Your task to perform on an android device: manage bookmarks in the chrome app Image 0: 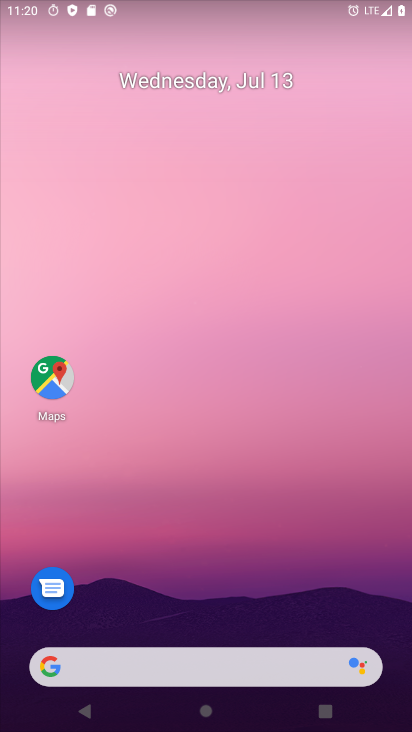
Step 0: drag from (283, 698) to (325, 47)
Your task to perform on an android device: manage bookmarks in the chrome app Image 1: 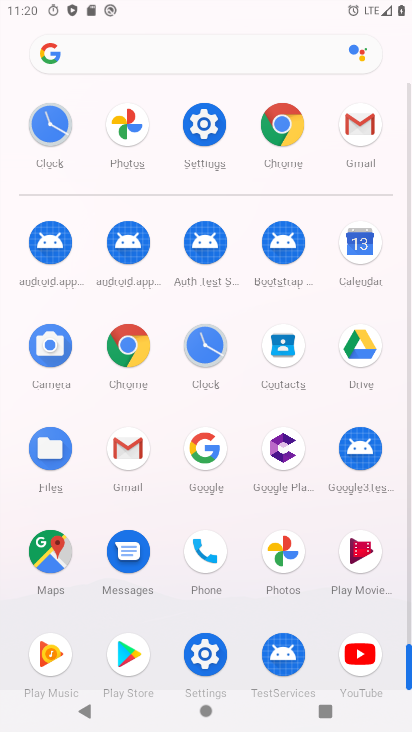
Step 1: click (126, 347)
Your task to perform on an android device: manage bookmarks in the chrome app Image 2: 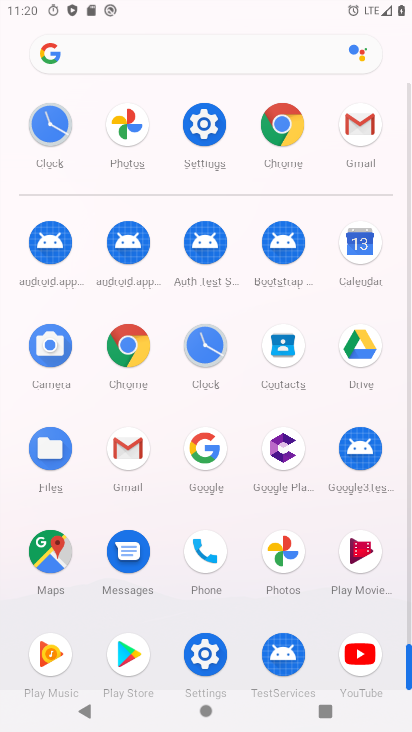
Step 2: click (126, 347)
Your task to perform on an android device: manage bookmarks in the chrome app Image 3: 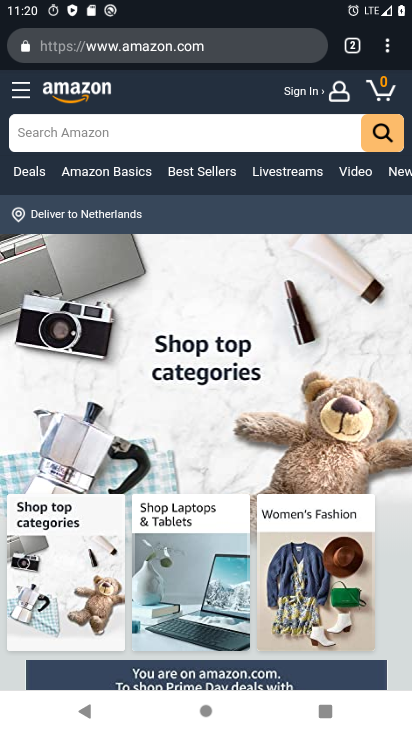
Step 3: click (386, 45)
Your task to perform on an android device: manage bookmarks in the chrome app Image 4: 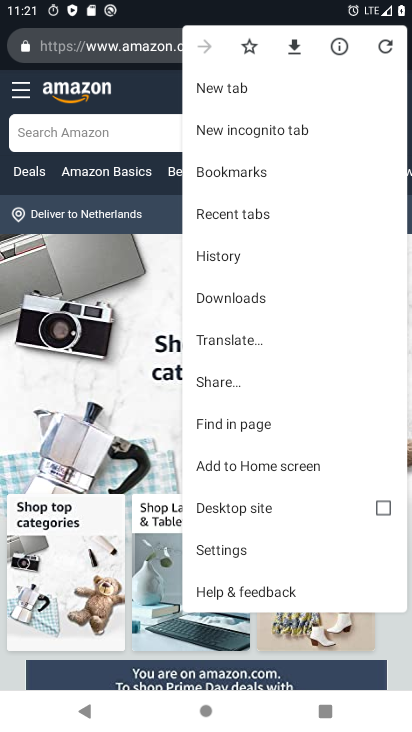
Step 4: click (238, 553)
Your task to perform on an android device: manage bookmarks in the chrome app Image 5: 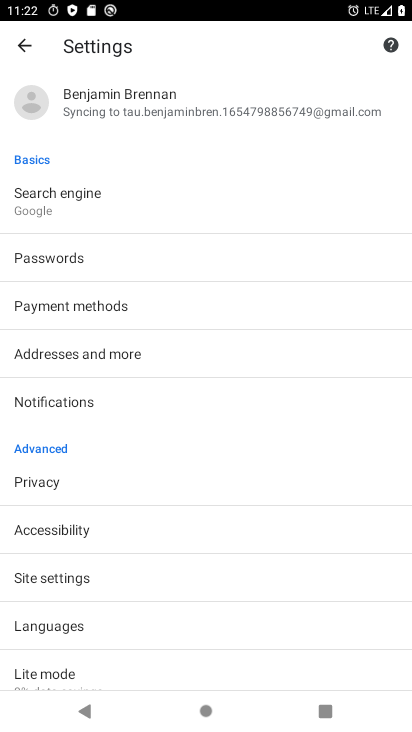
Step 5: drag from (236, 507) to (304, 151)
Your task to perform on an android device: manage bookmarks in the chrome app Image 6: 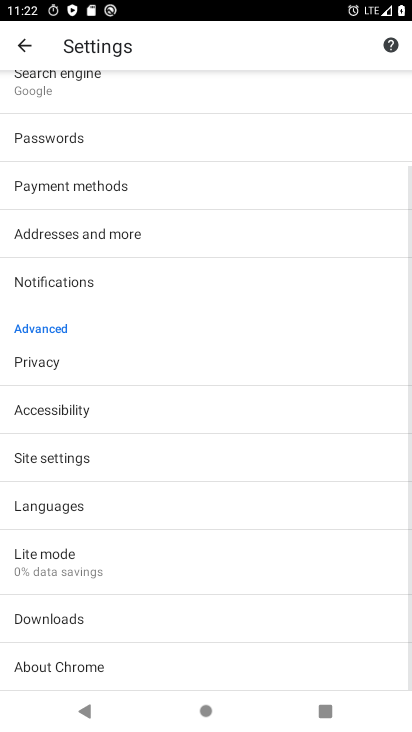
Step 6: drag from (265, 305) to (133, 721)
Your task to perform on an android device: manage bookmarks in the chrome app Image 7: 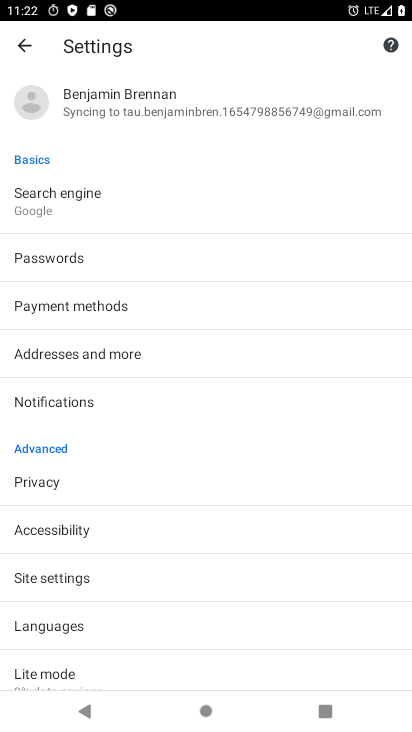
Step 7: drag from (212, 615) to (240, 169)
Your task to perform on an android device: manage bookmarks in the chrome app Image 8: 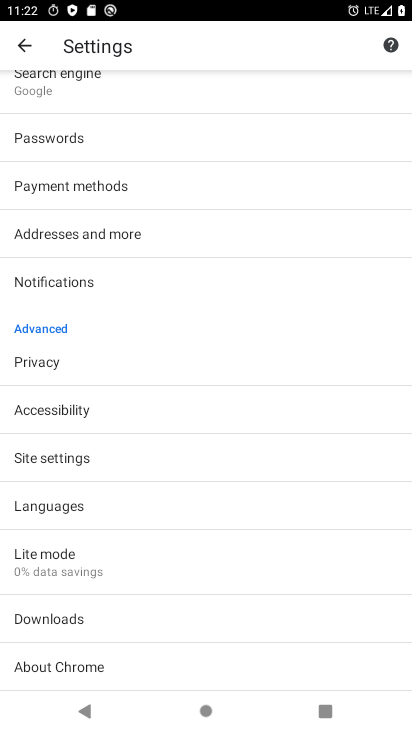
Step 8: drag from (326, 144) to (287, 632)
Your task to perform on an android device: manage bookmarks in the chrome app Image 9: 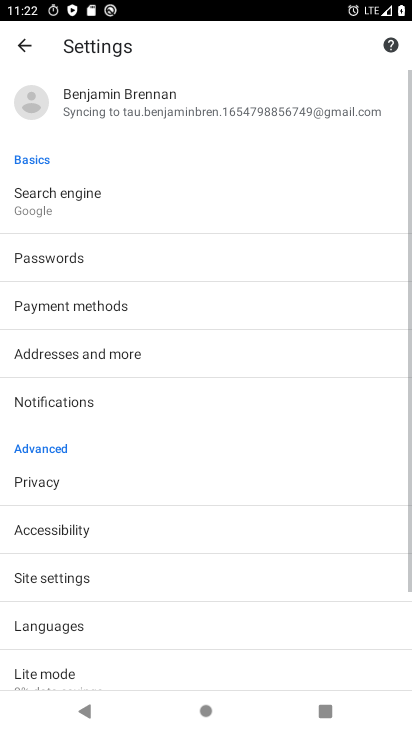
Step 9: click (16, 49)
Your task to perform on an android device: manage bookmarks in the chrome app Image 10: 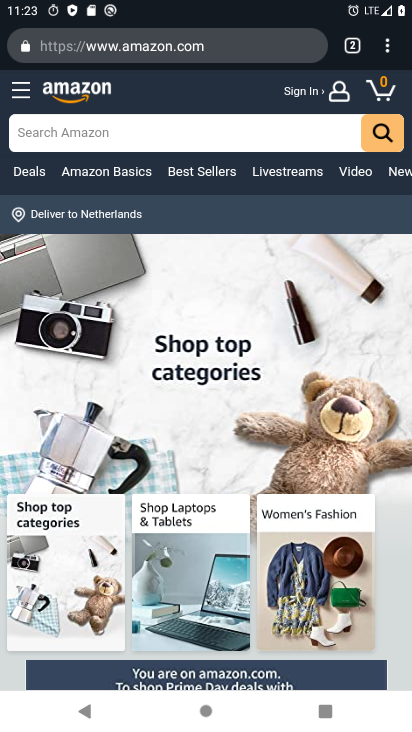
Step 10: click (390, 43)
Your task to perform on an android device: manage bookmarks in the chrome app Image 11: 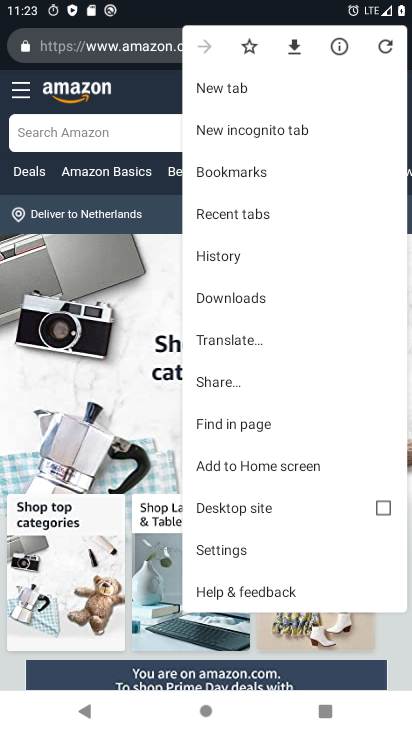
Step 11: click (277, 169)
Your task to perform on an android device: manage bookmarks in the chrome app Image 12: 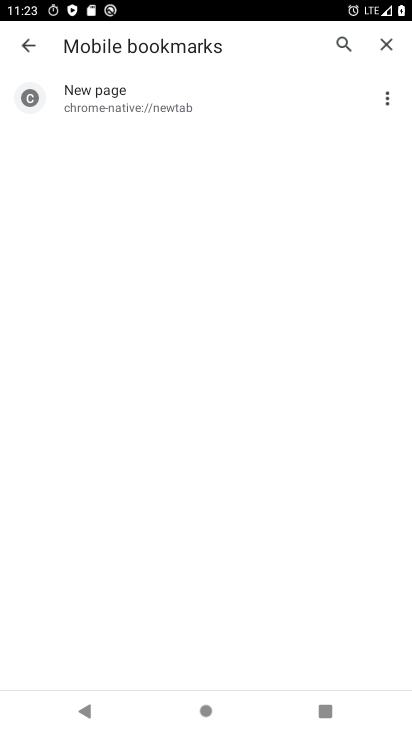
Step 12: click (127, 512)
Your task to perform on an android device: manage bookmarks in the chrome app Image 13: 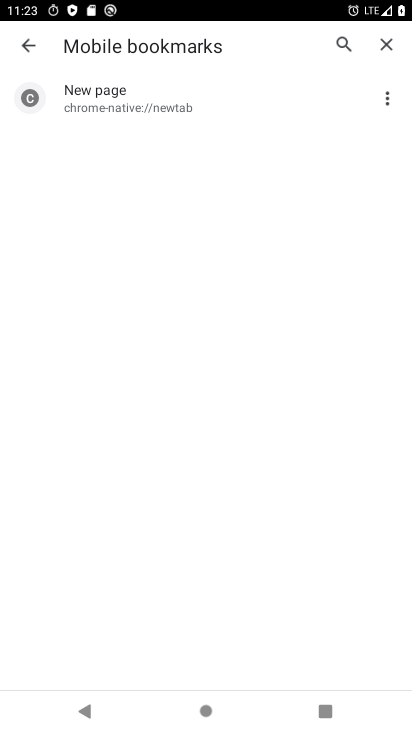
Step 13: click (387, 100)
Your task to perform on an android device: manage bookmarks in the chrome app Image 14: 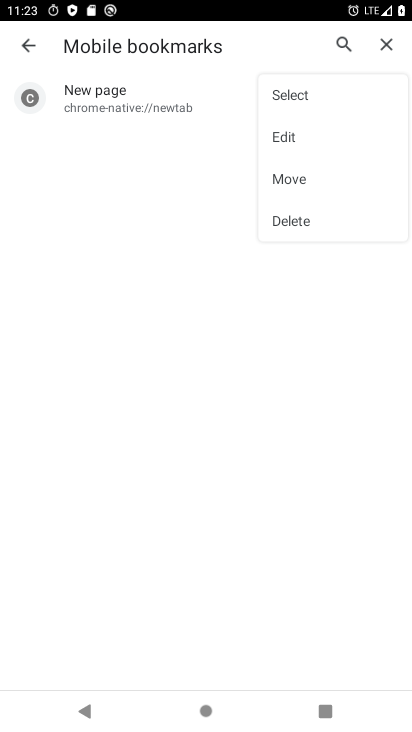
Step 14: click (220, 310)
Your task to perform on an android device: manage bookmarks in the chrome app Image 15: 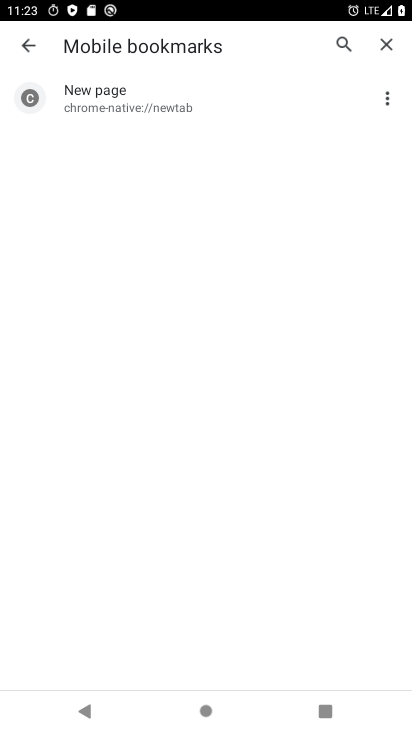
Step 15: click (395, 98)
Your task to perform on an android device: manage bookmarks in the chrome app Image 16: 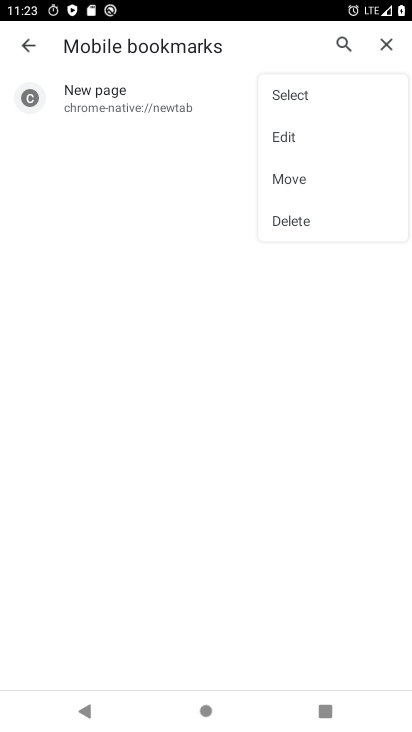
Step 16: click (243, 243)
Your task to perform on an android device: manage bookmarks in the chrome app Image 17: 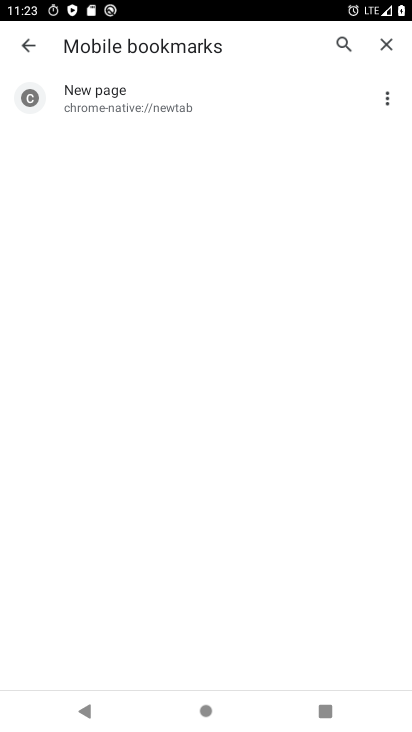
Step 17: click (388, 94)
Your task to perform on an android device: manage bookmarks in the chrome app Image 18: 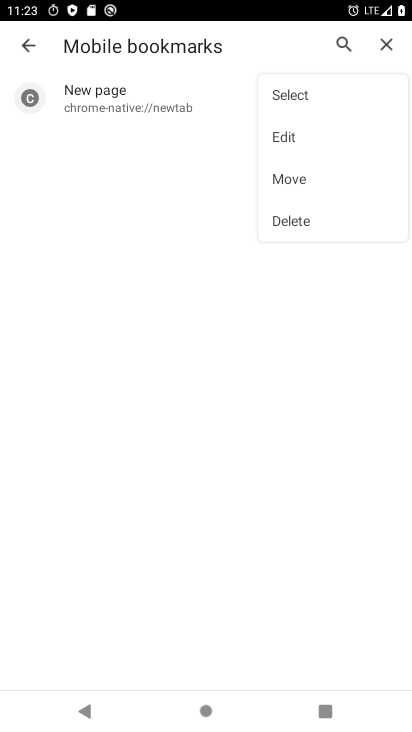
Step 18: click (87, 178)
Your task to perform on an android device: manage bookmarks in the chrome app Image 19: 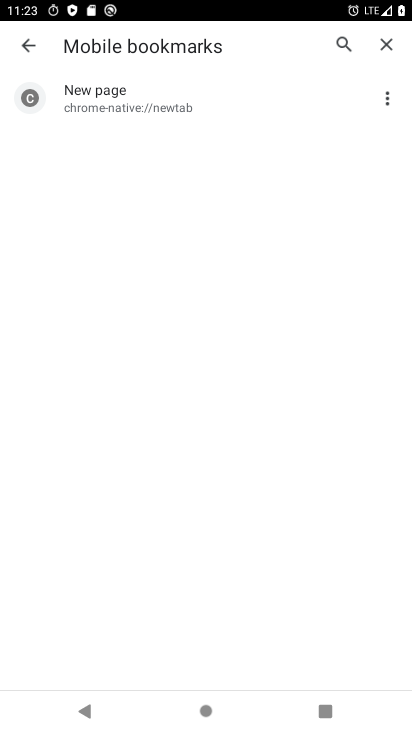
Step 19: click (388, 96)
Your task to perform on an android device: manage bookmarks in the chrome app Image 20: 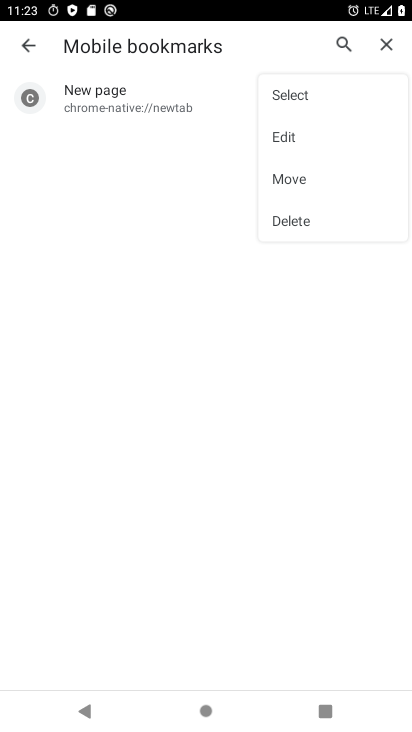
Step 20: click (309, 220)
Your task to perform on an android device: manage bookmarks in the chrome app Image 21: 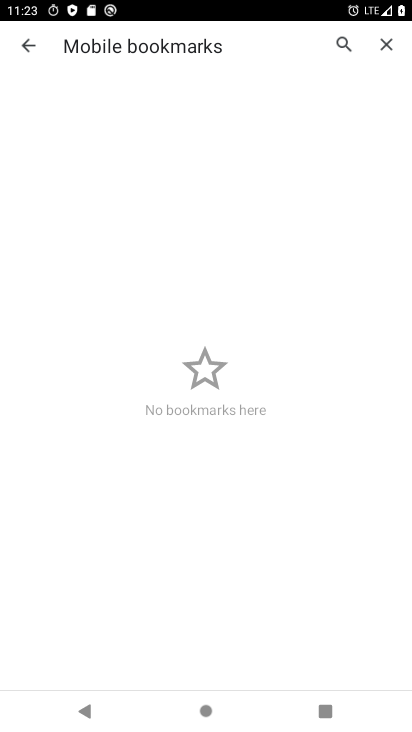
Step 21: task complete